Your task to perform on an android device: open device folders in google photos Image 0: 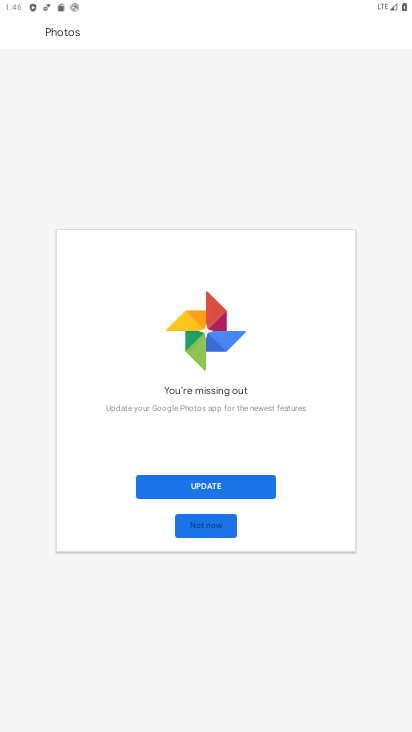
Step 0: press home button
Your task to perform on an android device: open device folders in google photos Image 1: 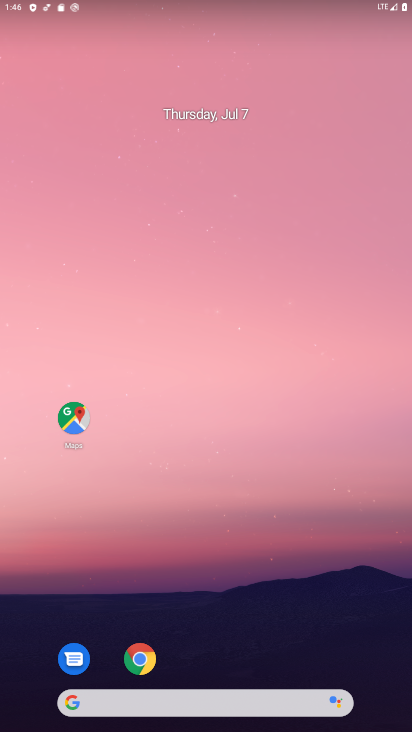
Step 1: drag from (261, 620) to (221, 41)
Your task to perform on an android device: open device folders in google photos Image 2: 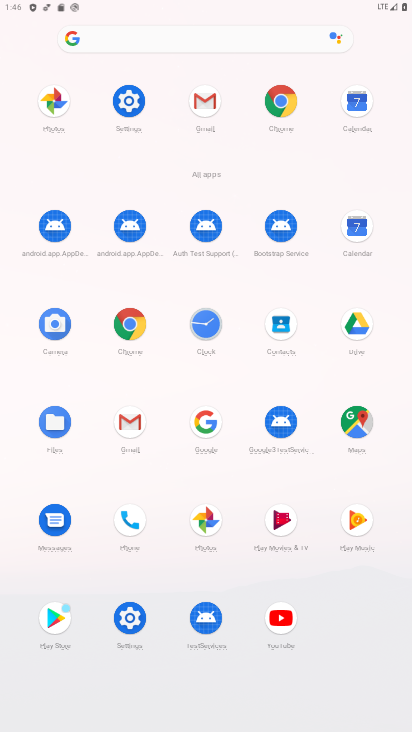
Step 2: click (203, 519)
Your task to perform on an android device: open device folders in google photos Image 3: 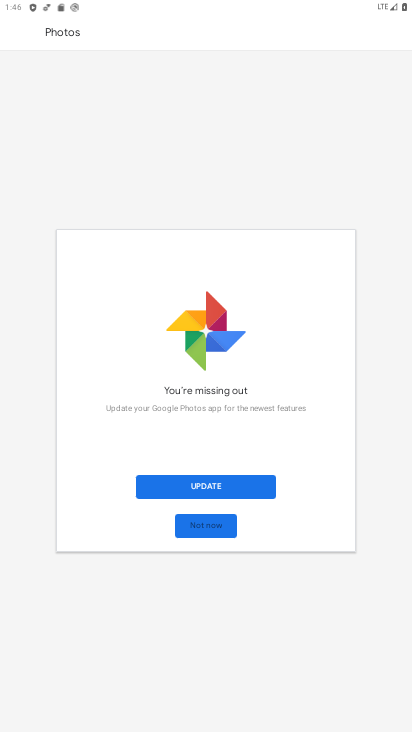
Step 3: click (207, 482)
Your task to perform on an android device: open device folders in google photos Image 4: 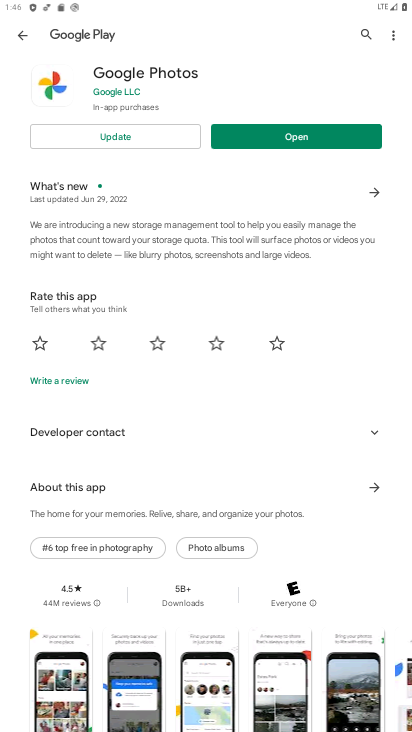
Step 4: click (123, 136)
Your task to perform on an android device: open device folders in google photos Image 5: 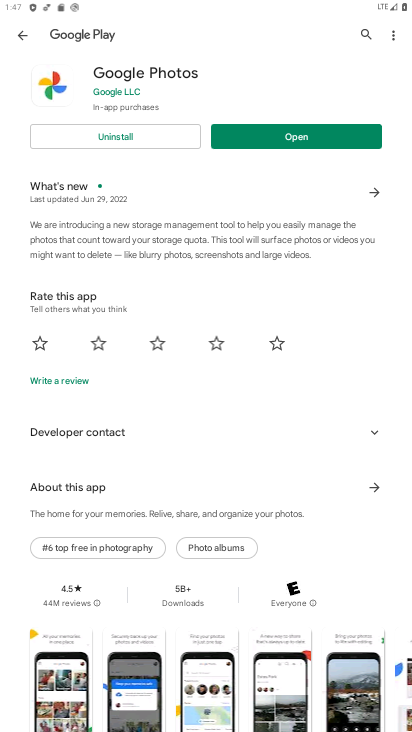
Step 5: click (272, 141)
Your task to perform on an android device: open device folders in google photos Image 6: 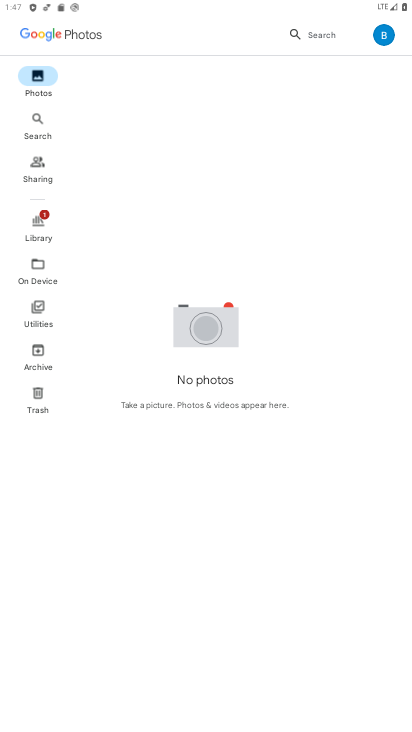
Step 6: click (49, 210)
Your task to perform on an android device: open device folders in google photos Image 7: 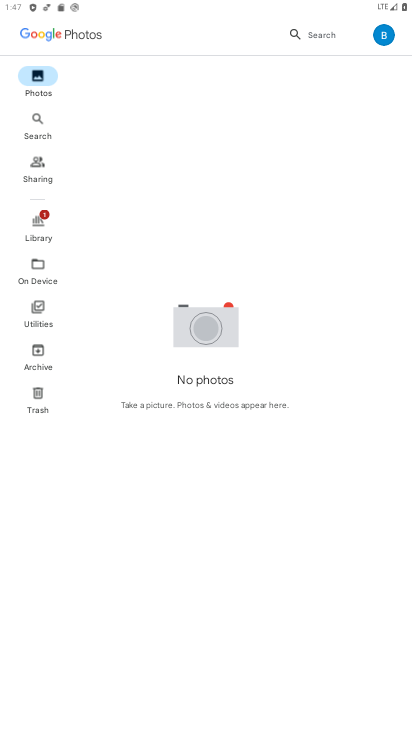
Step 7: click (38, 221)
Your task to perform on an android device: open device folders in google photos Image 8: 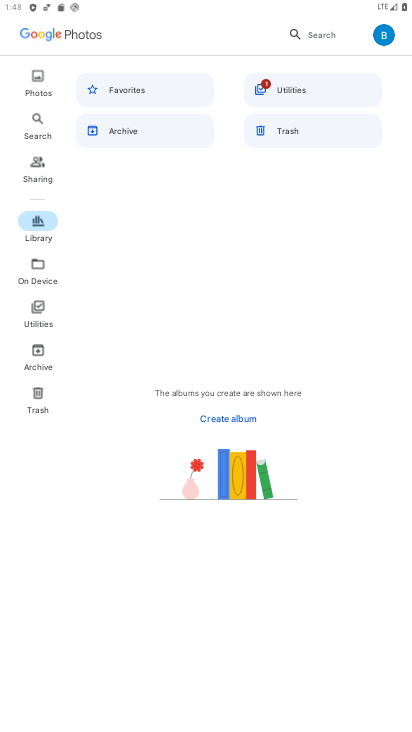
Step 8: click (304, 88)
Your task to perform on an android device: open device folders in google photos Image 9: 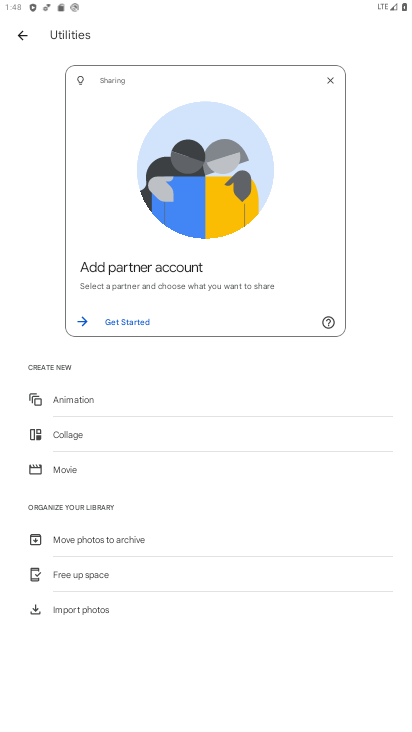
Step 9: click (120, 431)
Your task to perform on an android device: open device folders in google photos Image 10: 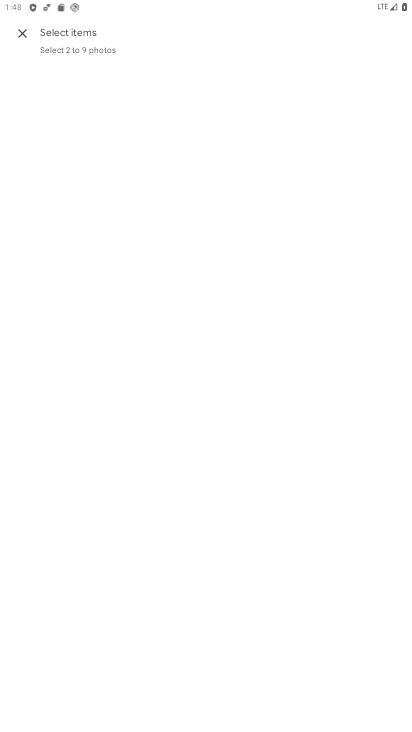
Step 10: task complete